Your task to perform on an android device: Open display settings Image 0: 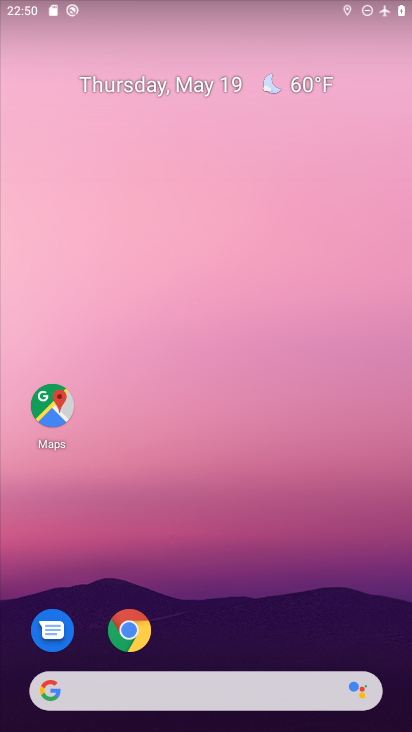
Step 0: drag from (228, 567) to (234, 220)
Your task to perform on an android device: Open display settings Image 1: 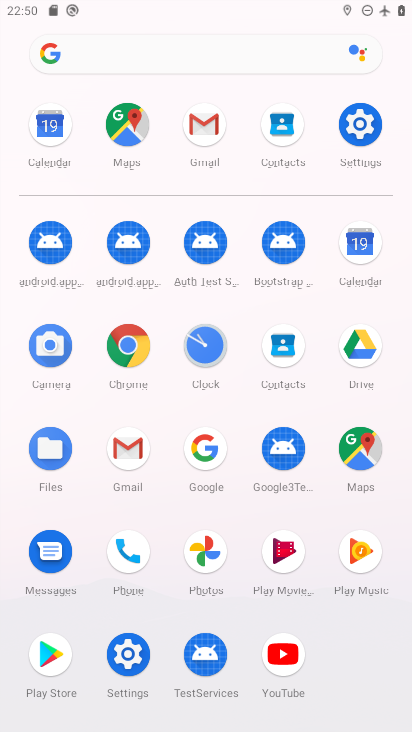
Step 1: click (362, 122)
Your task to perform on an android device: Open display settings Image 2: 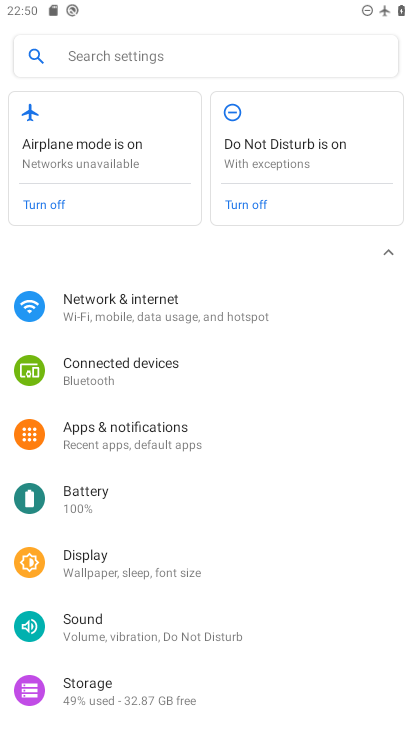
Step 2: click (84, 550)
Your task to perform on an android device: Open display settings Image 3: 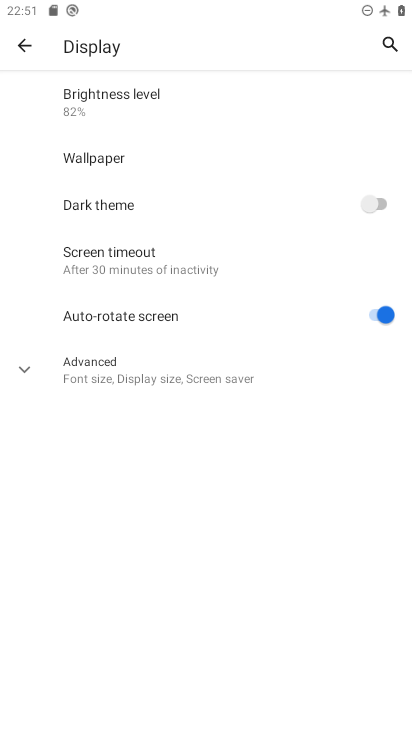
Step 3: task complete